Your task to perform on an android device: open chrome and create a bookmark for the current page Image 0: 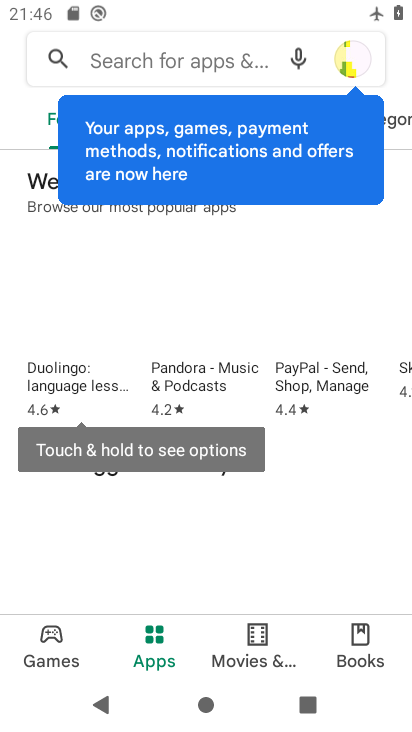
Step 0: press home button
Your task to perform on an android device: open chrome and create a bookmark for the current page Image 1: 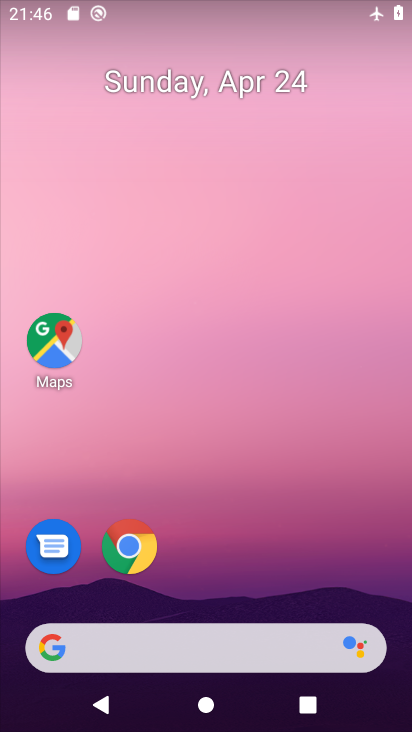
Step 1: drag from (265, 497) to (265, 249)
Your task to perform on an android device: open chrome and create a bookmark for the current page Image 2: 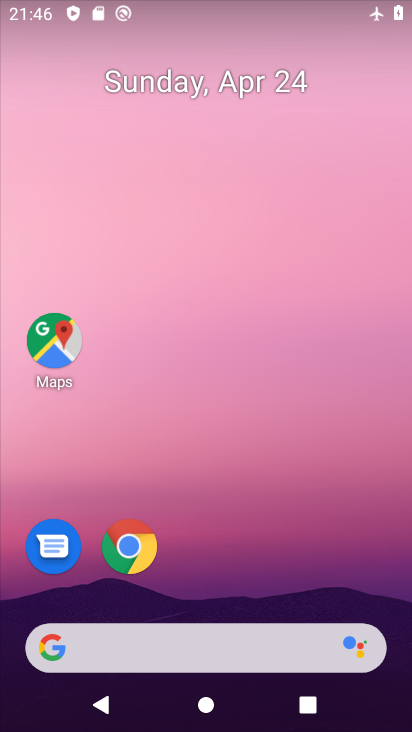
Step 2: drag from (253, 571) to (279, 247)
Your task to perform on an android device: open chrome and create a bookmark for the current page Image 3: 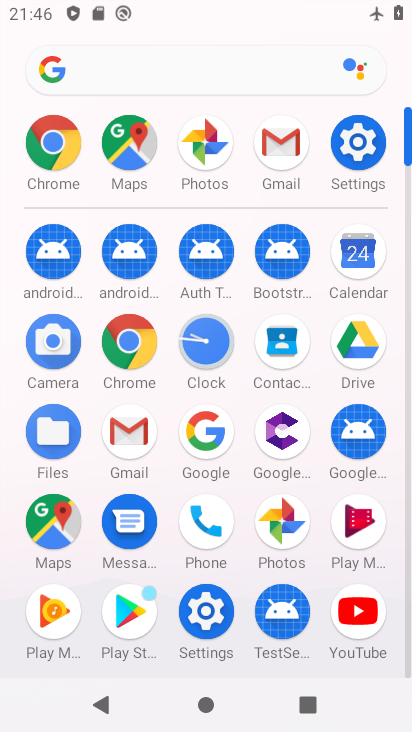
Step 3: click (134, 337)
Your task to perform on an android device: open chrome and create a bookmark for the current page Image 4: 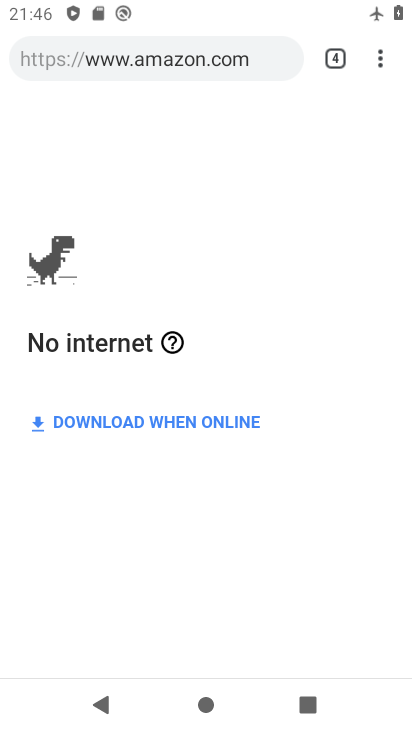
Step 4: click (364, 51)
Your task to perform on an android device: open chrome and create a bookmark for the current page Image 5: 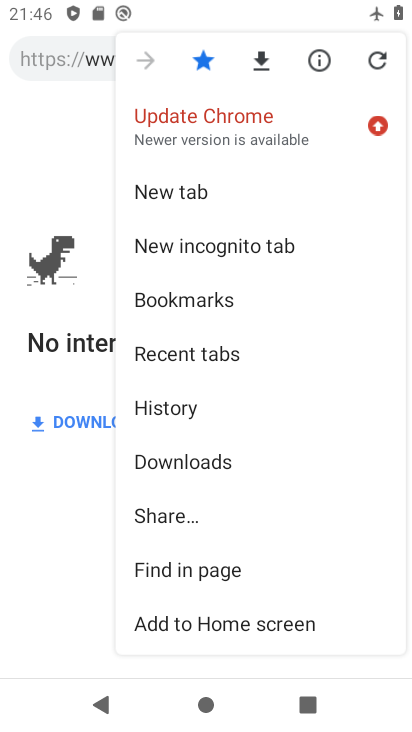
Step 5: click (247, 303)
Your task to perform on an android device: open chrome and create a bookmark for the current page Image 6: 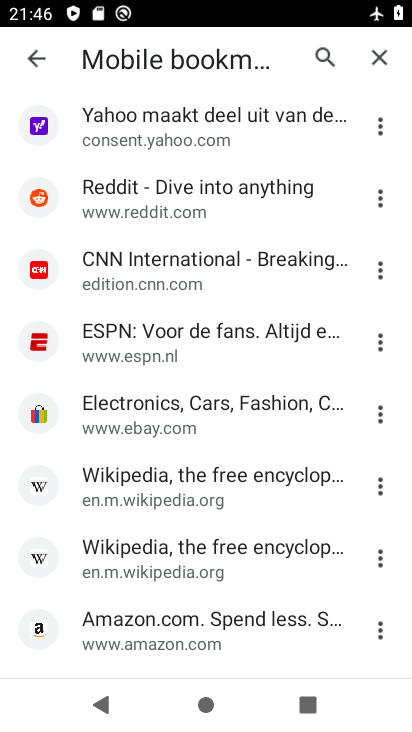
Step 6: click (185, 183)
Your task to perform on an android device: open chrome and create a bookmark for the current page Image 7: 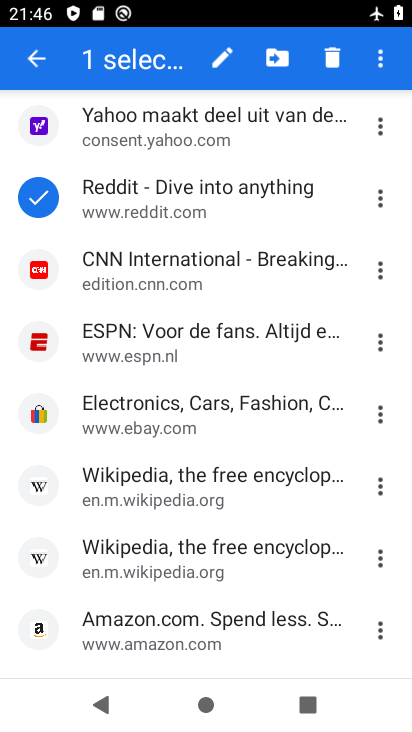
Step 7: click (185, 183)
Your task to perform on an android device: open chrome and create a bookmark for the current page Image 8: 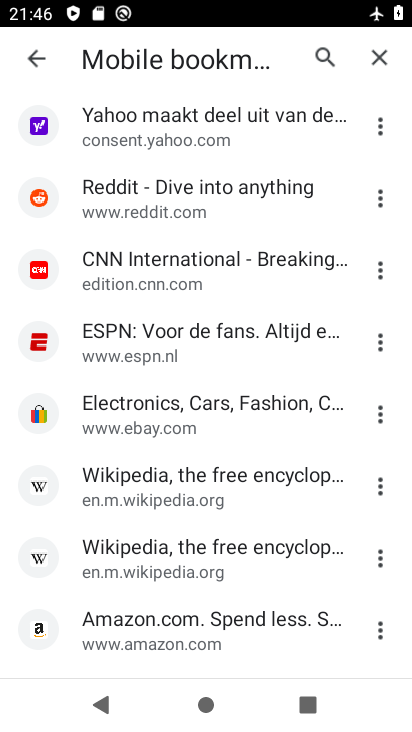
Step 8: click (294, 186)
Your task to perform on an android device: open chrome and create a bookmark for the current page Image 9: 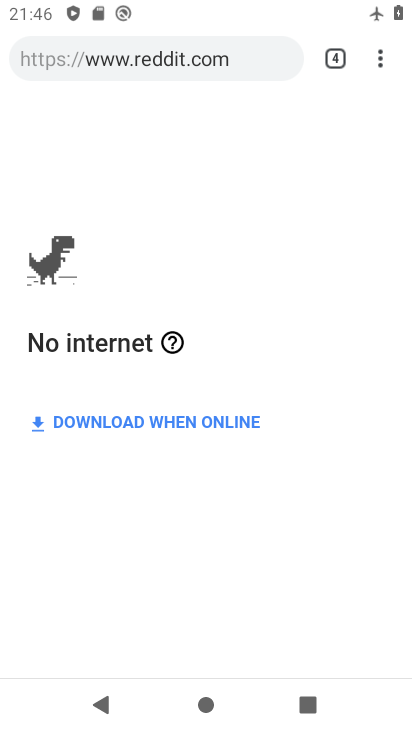
Step 9: task complete